Your task to perform on an android device: Open Android settings Image 0: 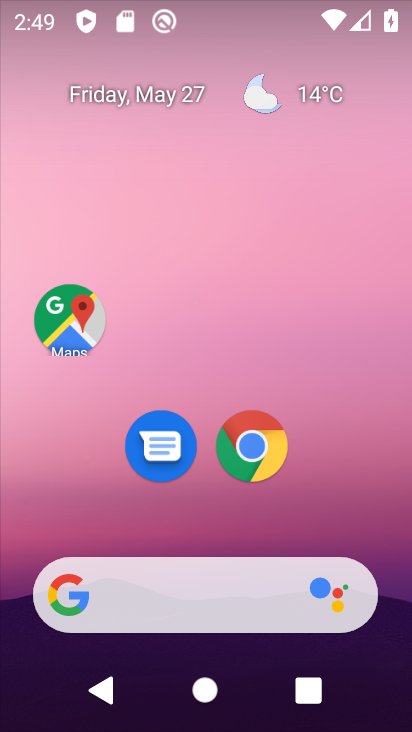
Step 0: press home button
Your task to perform on an android device: Open Android settings Image 1: 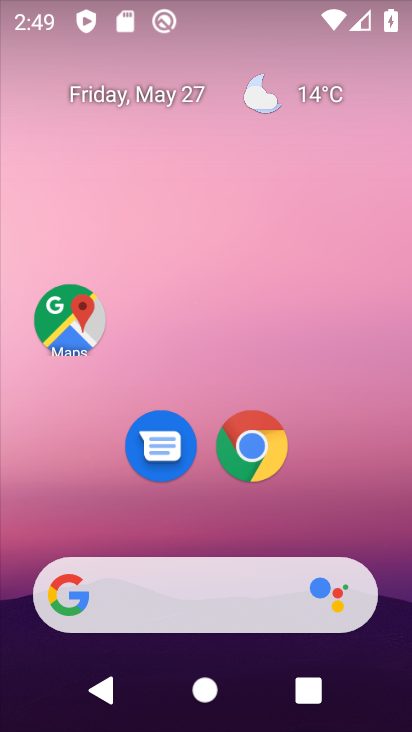
Step 1: drag from (195, 603) to (314, 121)
Your task to perform on an android device: Open Android settings Image 2: 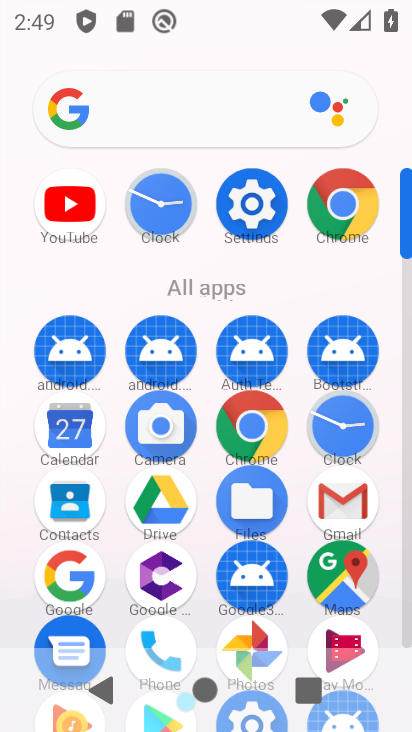
Step 2: click (255, 200)
Your task to perform on an android device: Open Android settings Image 3: 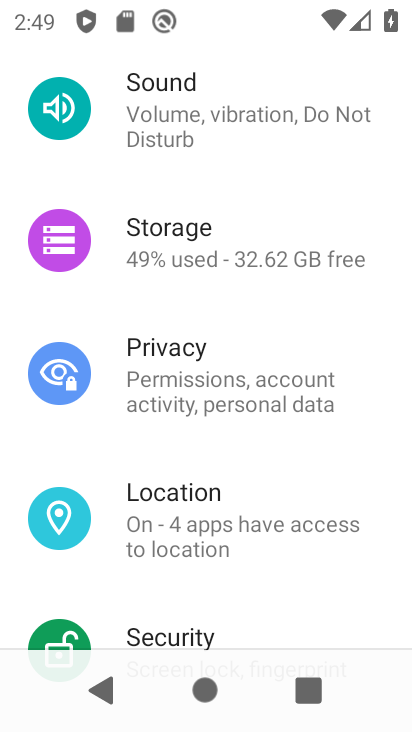
Step 3: task complete